Your task to perform on an android device: open app "Gmail" (install if not already installed), go to login, and select forgot password Image 0: 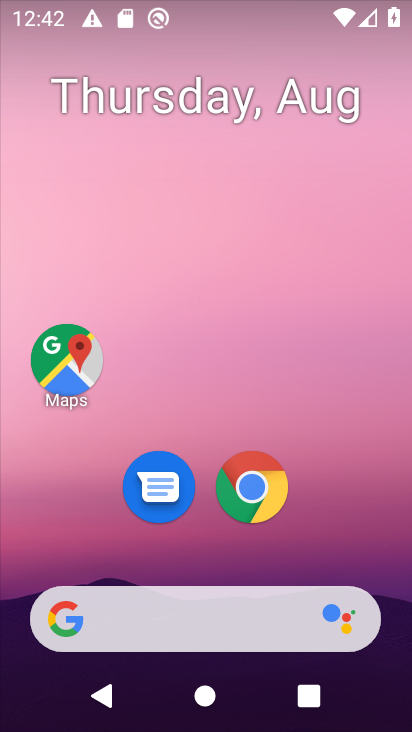
Step 0: drag from (234, 572) to (259, 15)
Your task to perform on an android device: open app "Gmail" (install if not already installed), go to login, and select forgot password Image 1: 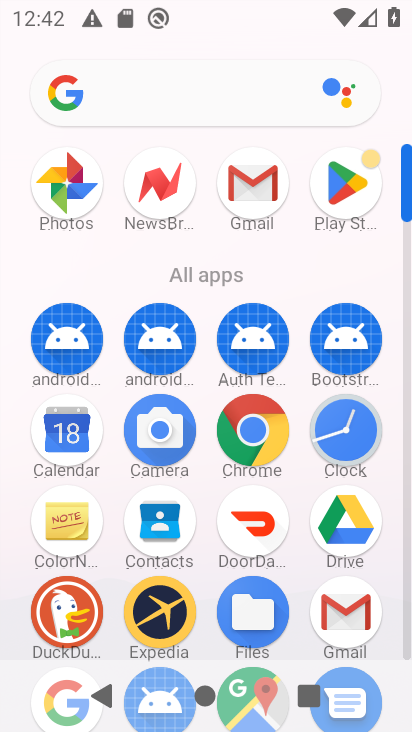
Step 1: click (350, 176)
Your task to perform on an android device: open app "Gmail" (install if not already installed), go to login, and select forgot password Image 2: 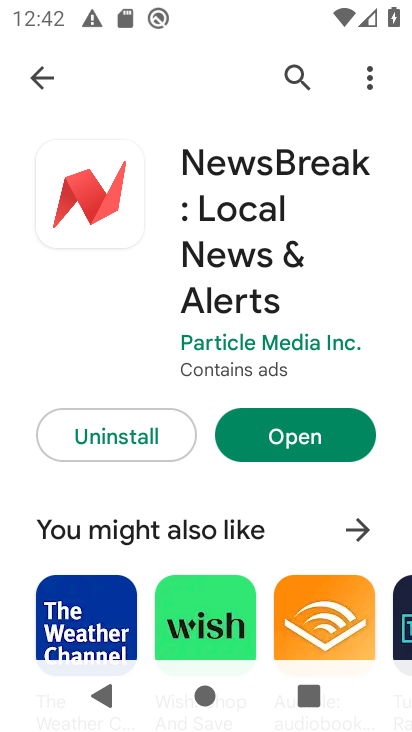
Step 2: click (300, 78)
Your task to perform on an android device: open app "Gmail" (install if not already installed), go to login, and select forgot password Image 3: 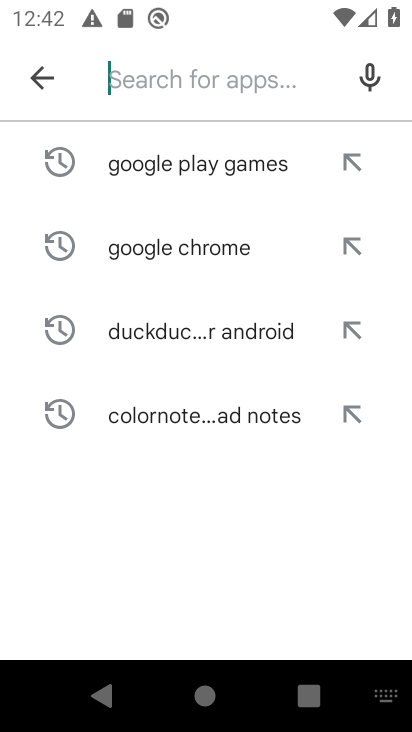
Step 3: click (300, 78)
Your task to perform on an android device: open app "Gmail" (install if not already installed), go to login, and select forgot password Image 4: 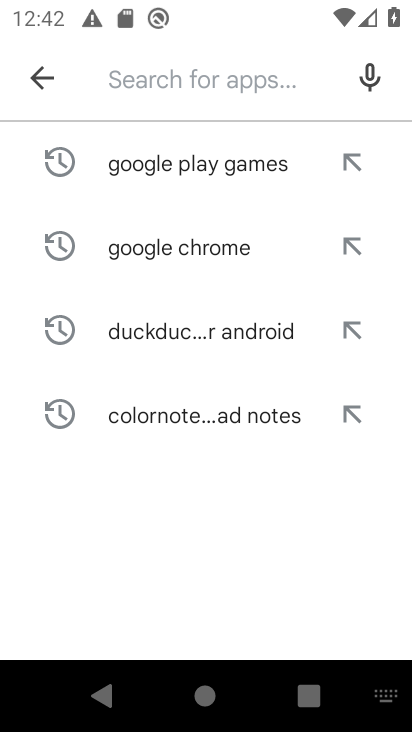
Step 4: type "Gmail"
Your task to perform on an android device: open app "Gmail" (install if not already installed), go to login, and select forgot password Image 5: 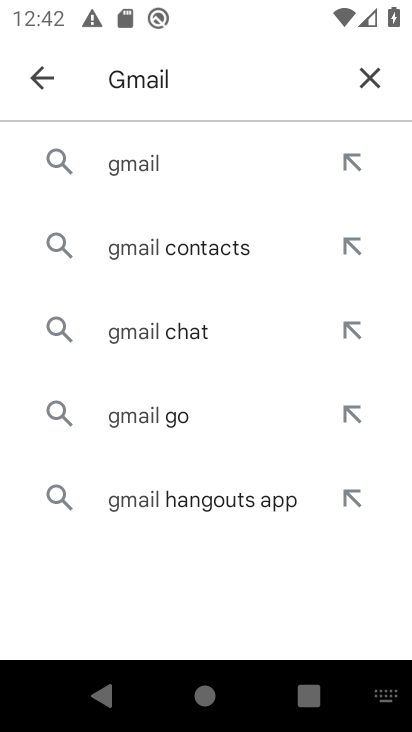
Step 5: click (247, 167)
Your task to perform on an android device: open app "Gmail" (install if not already installed), go to login, and select forgot password Image 6: 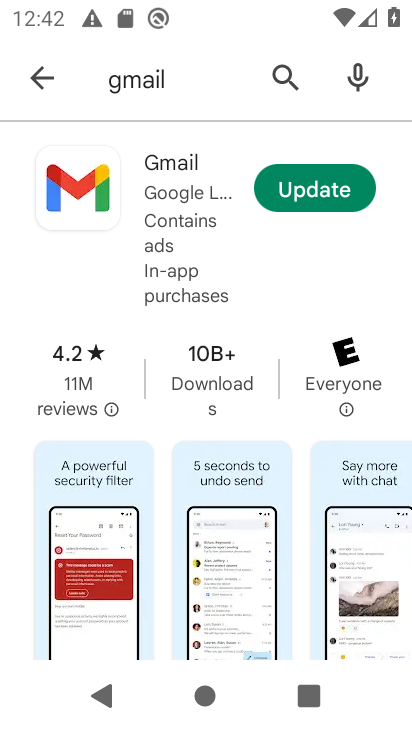
Step 6: click (323, 207)
Your task to perform on an android device: open app "Gmail" (install if not already installed), go to login, and select forgot password Image 7: 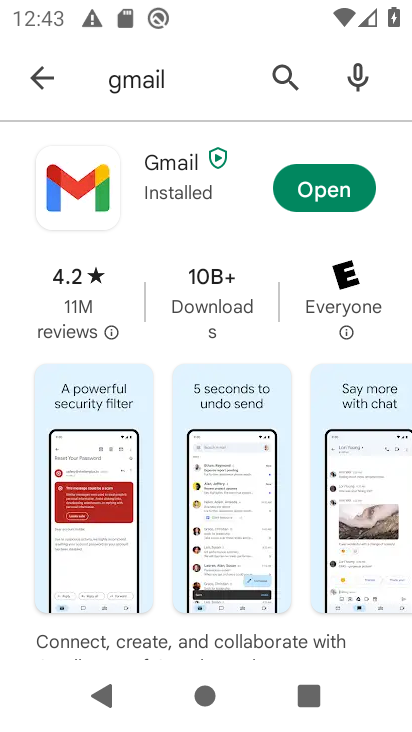
Step 7: click (365, 188)
Your task to perform on an android device: open app "Gmail" (install if not already installed), go to login, and select forgot password Image 8: 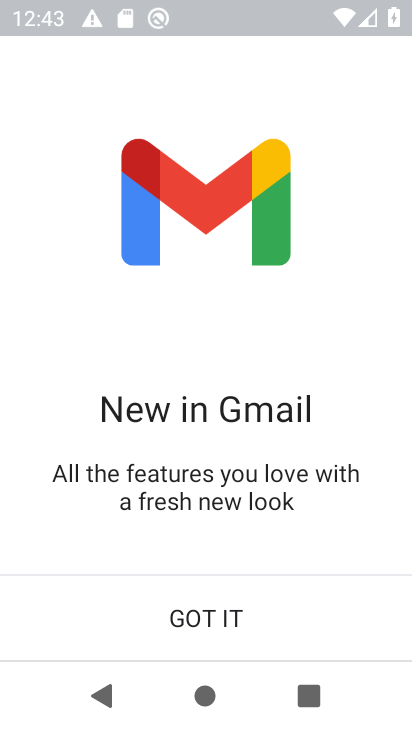
Step 8: click (199, 613)
Your task to perform on an android device: open app "Gmail" (install if not already installed), go to login, and select forgot password Image 9: 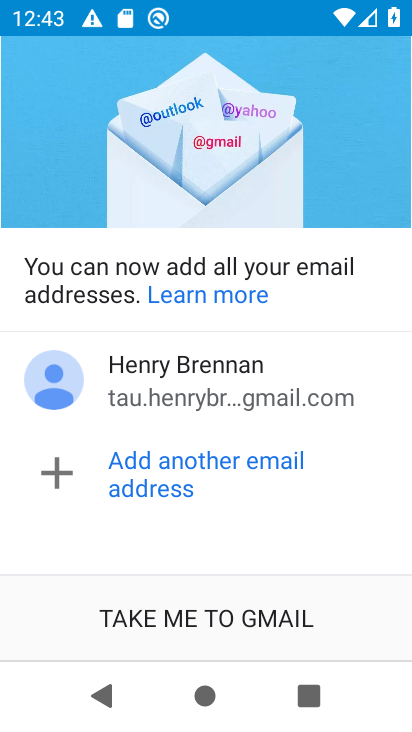
Step 9: click (199, 613)
Your task to perform on an android device: open app "Gmail" (install if not already installed), go to login, and select forgot password Image 10: 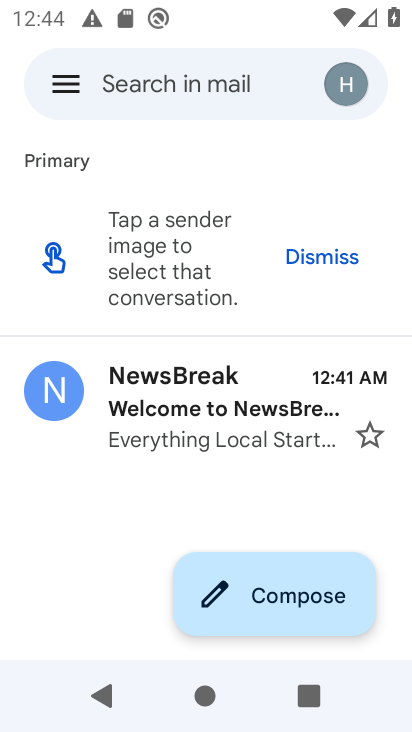
Step 10: task complete